Your task to perform on an android device: delete location history Image 0: 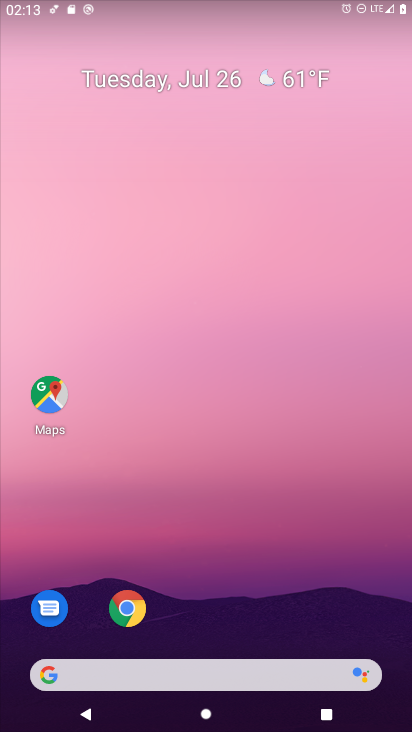
Step 0: press home button
Your task to perform on an android device: delete location history Image 1: 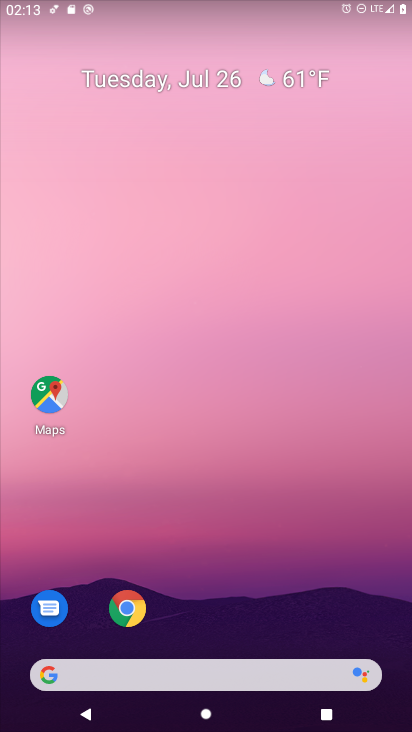
Step 1: drag from (15, 681) to (162, 58)
Your task to perform on an android device: delete location history Image 2: 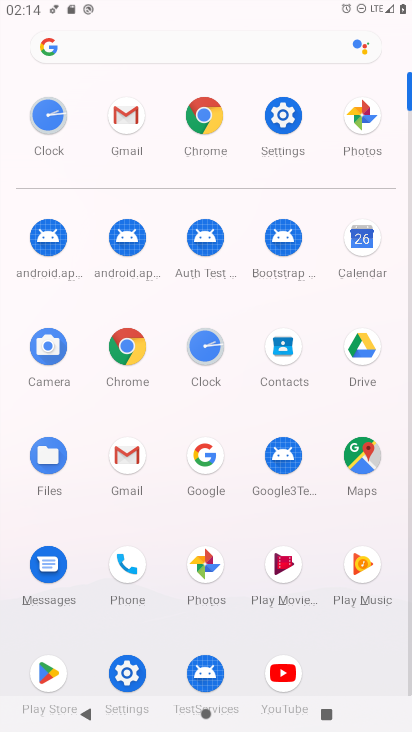
Step 2: click (262, 113)
Your task to perform on an android device: delete location history Image 3: 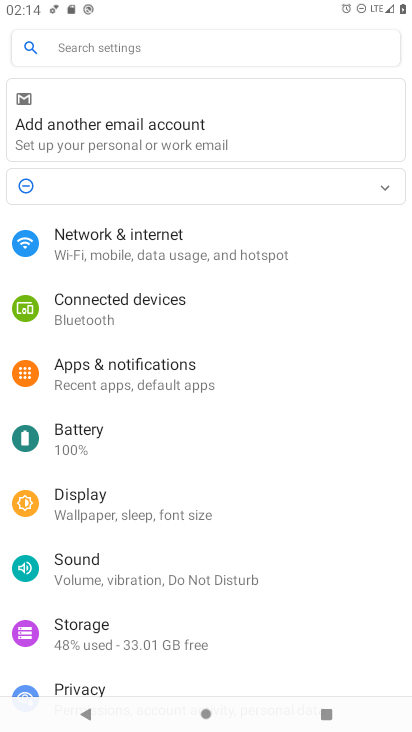
Step 3: drag from (10, 639) to (174, 281)
Your task to perform on an android device: delete location history Image 4: 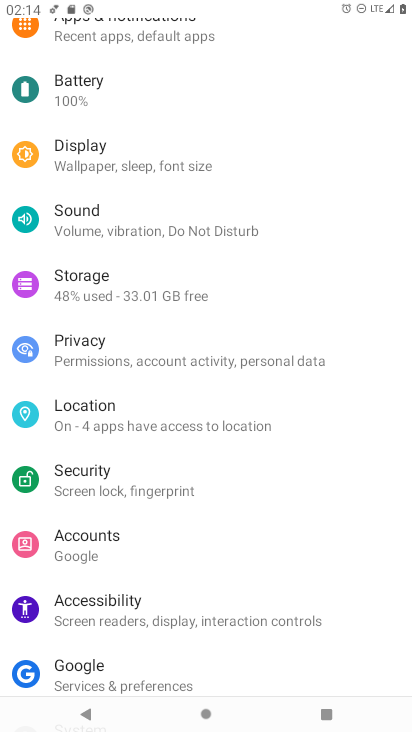
Step 4: click (52, 418)
Your task to perform on an android device: delete location history Image 5: 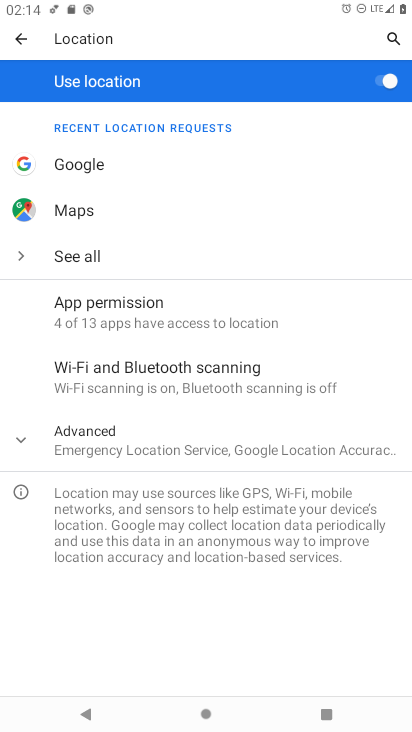
Step 5: click (130, 451)
Your task to perform on an android device: delete location history Image 6: 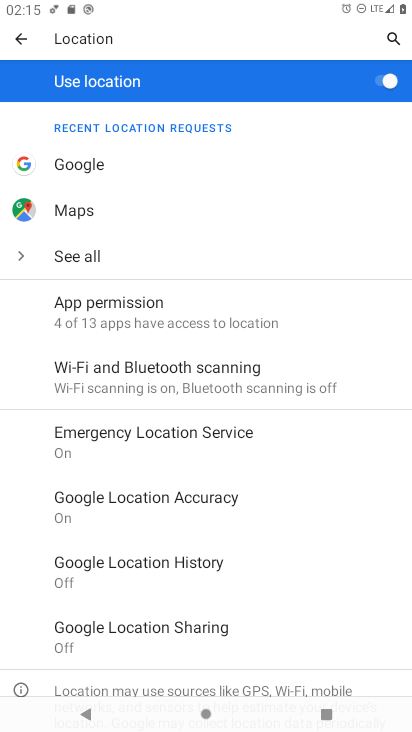
Step 6: click (200, 556)
Your task to perform on an android device: delete location history Image 7: 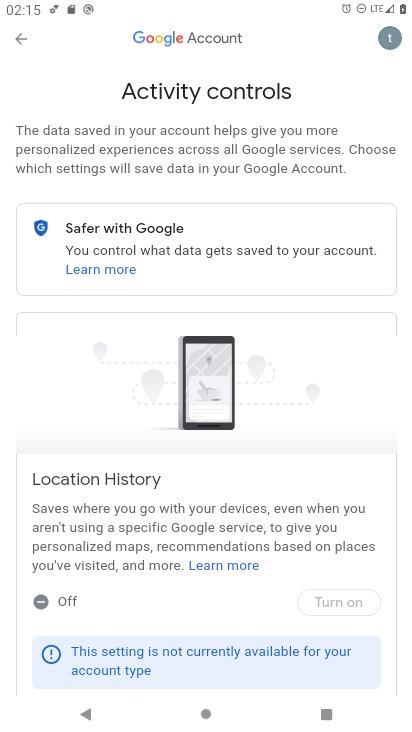
Step 7: task complete